Your task to perform on an android device: turn on the 24-hour format for clock Image 0: 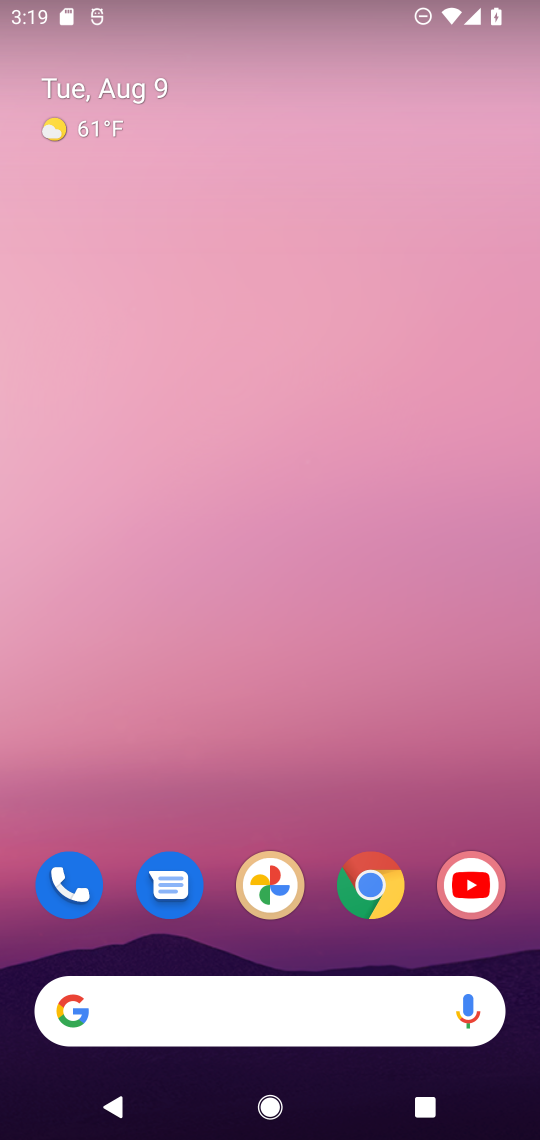
Step 0: drag from (309, 734) to (345, 262)
Your task to perform on an android device: turn on the 24-hour format for clock Image 1: 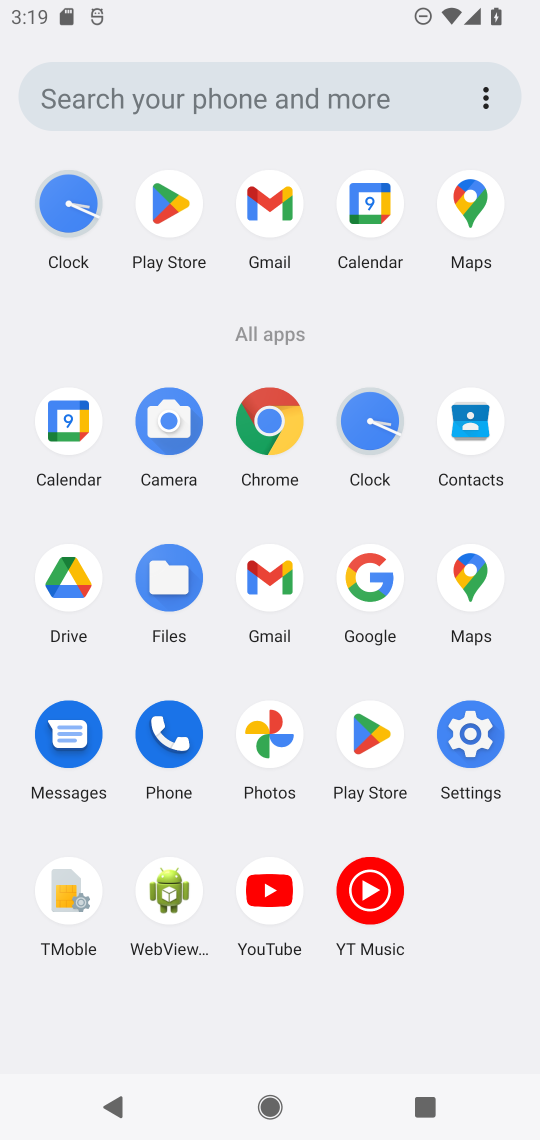
Step 1: click (374, 417)
Your task to perform on an android device: turn on the 24-hour format for clock Image 2: 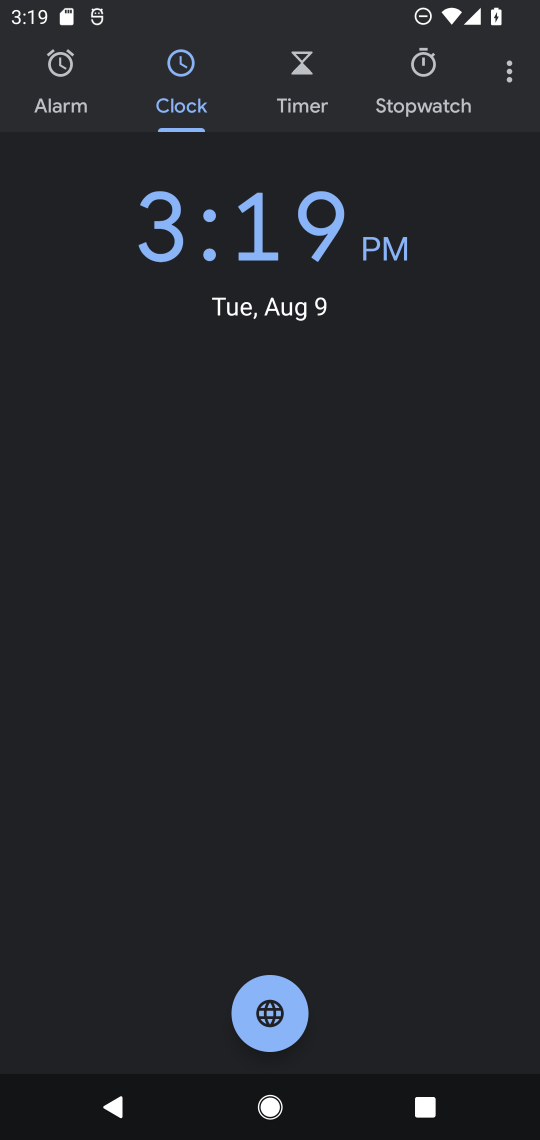
Step 2: task complete